Your task to perform on an android device: Open Chrome and go to settings Image 0: 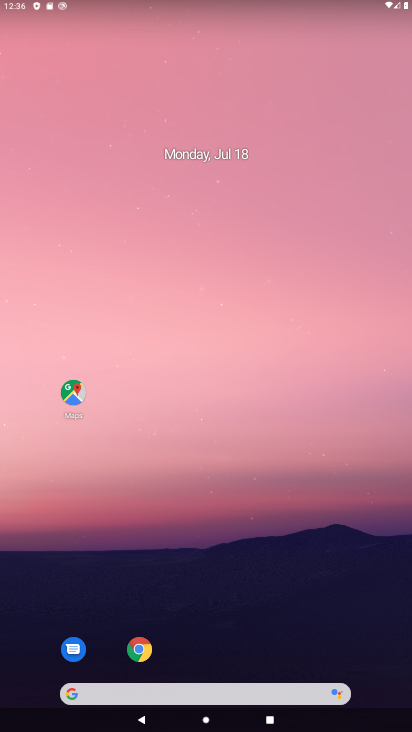
Step 0: click (142, 649)
Your task to perform on an android device: Open Chrome and go to settings Image 1: 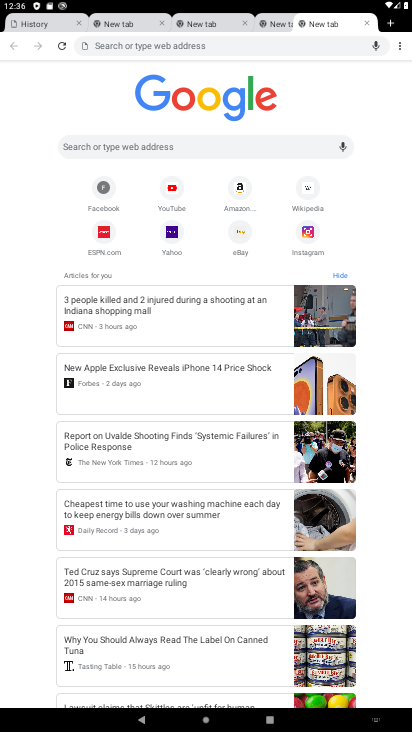
Step 1: click (399, 48)
Your task to perform on an android device: Open Chrome and go to settings Image 2: 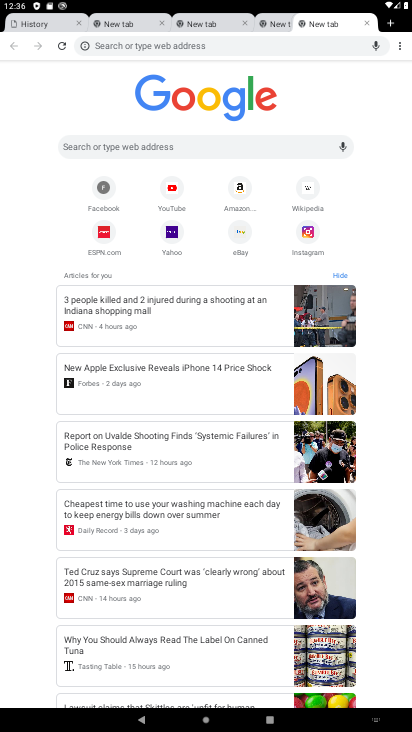
Step 2: click (399, 47)
Your task to perform on an android device: Open Chrome and go to settings Image 3: 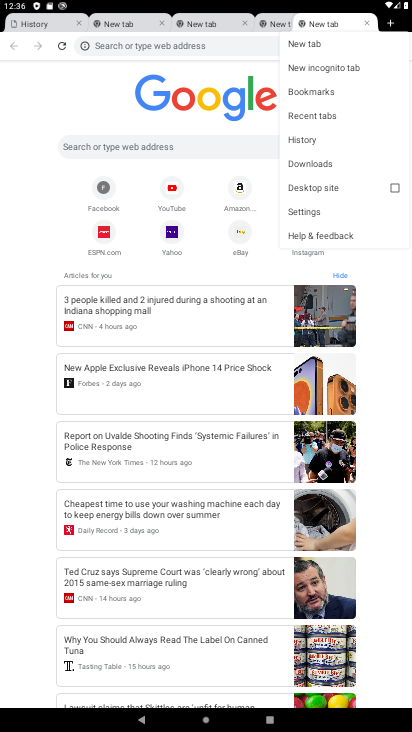
Step 3: click (316, 212)
Your task to perform on an android device: Open Chrome and go to settings Image 4: 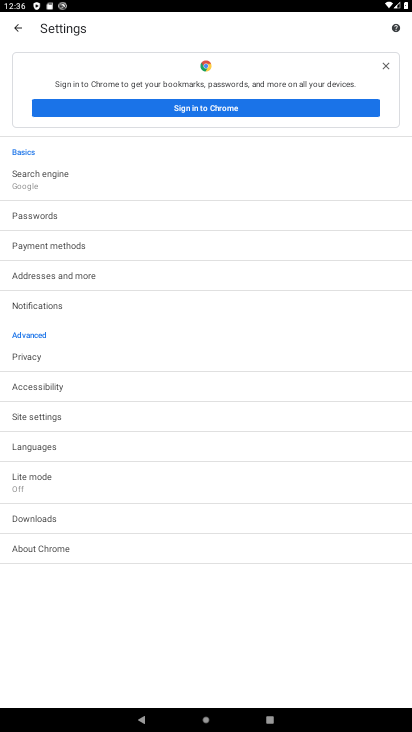
Step 4: task complete